Your task to perform on an android device: uninstall "Booking.com: Hotels and more" Image 0: 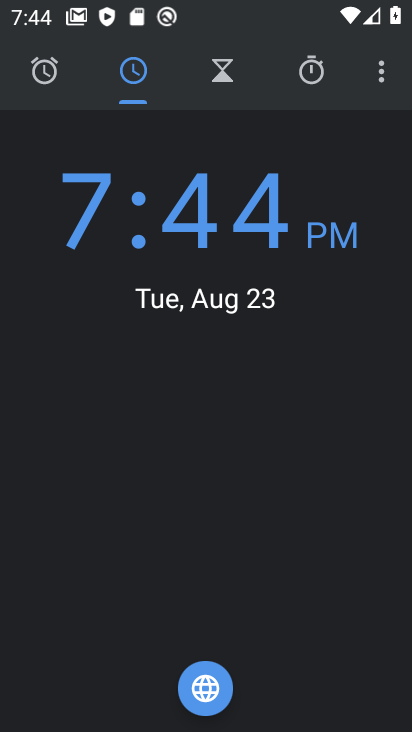
Step 0: press home button
Your task to perform on an android device: uninstall "Booking.com: Hotels and more" Image 1: 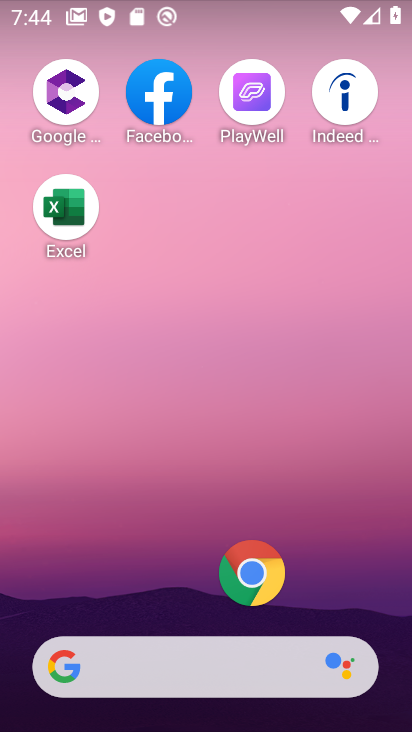
Step 1: drag from (184, 593) to (141, 131)
Your task to perform on an android device: uninstall "Booking.com: Hotels and more" Image 2: 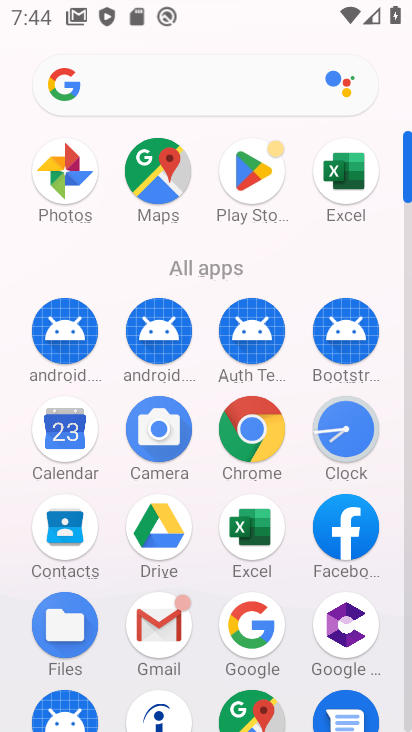
Step 2: click (252, 163)
Your task to perform on an android device: uninstall "Booking.com: Hotels and more" Image 3: 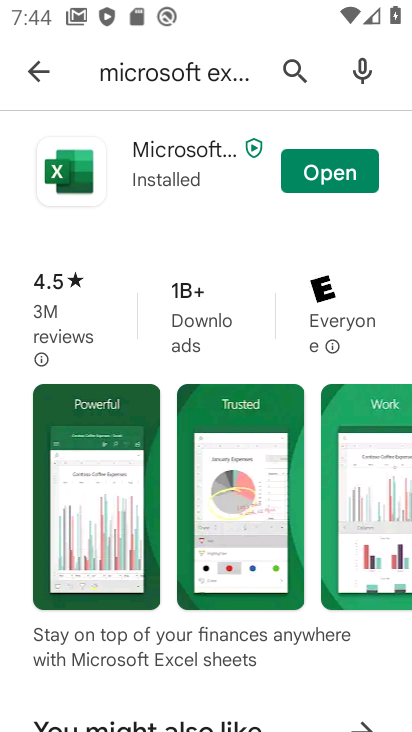
Step 3: click (29, 72)
Your task to perform on an android device: uninstall "Booking.com: Hotels and more" Image 4: 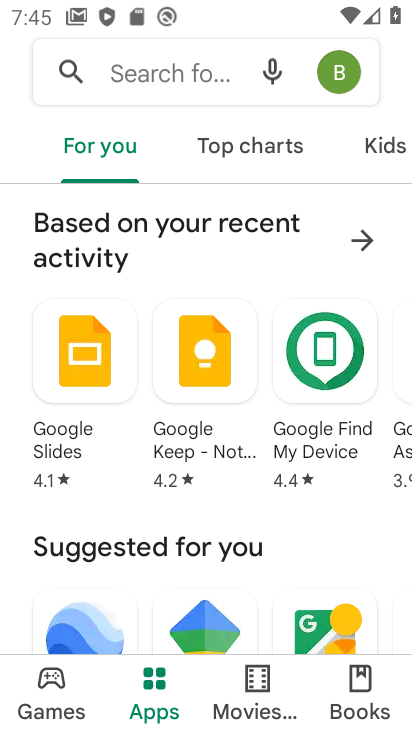
Step 4: click (126, 63)
Your task to perform on an android device: uninstall "Booking.com: Hotels and more" Image 5: 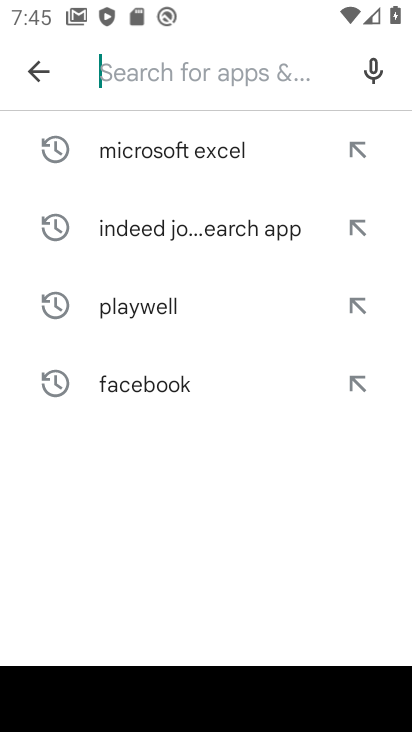
Step 5: type "Booking.com: Hotels and more"
Your task to perform on an android device: uninstall "Booking.com: Hotels and more" Image 6: 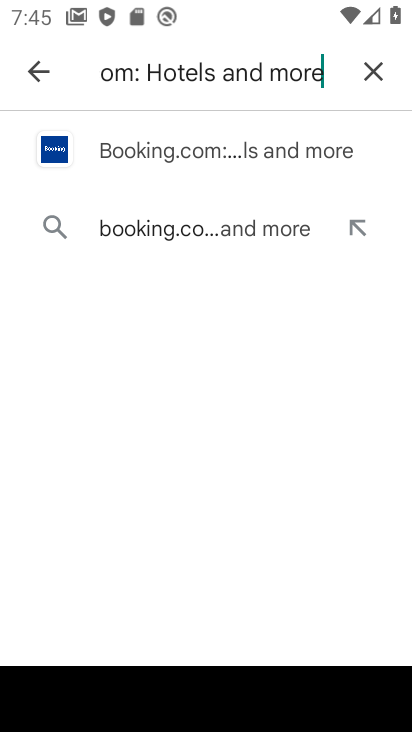
Step 6: click (190, 152)
Your task to perform on an android device: uninstall "Booking.com: Hotels and more" Image 7: 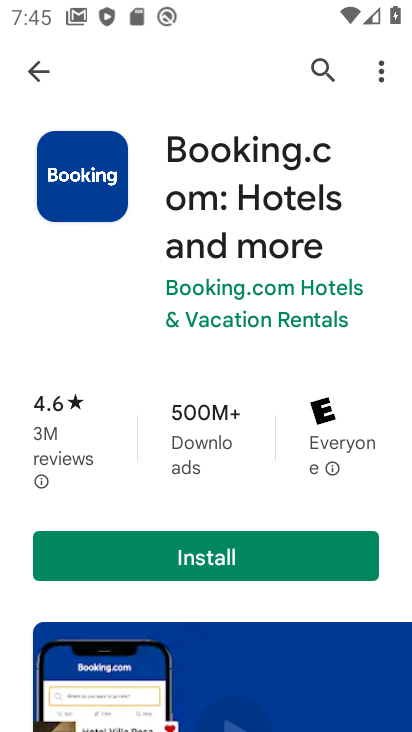
Step 7: click (189, 560)
Your task to perform on an android device: uninstall "Booking.com: Hotels and more" Image 8: 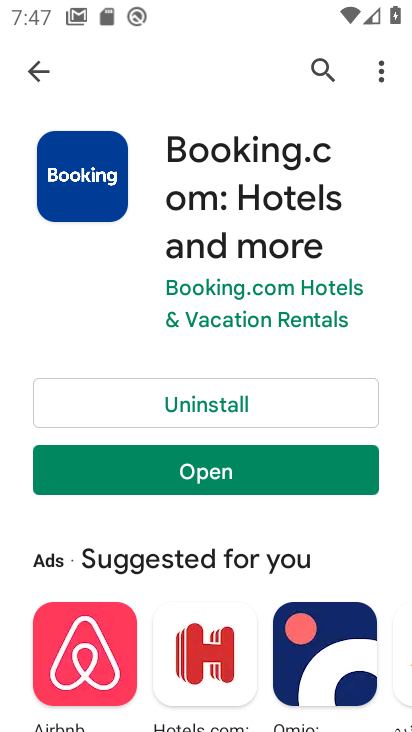
Step 8: click (220, 403)
Your task to perform on an android device: uninstall "Booking.com: Hotels and more" Image 9: 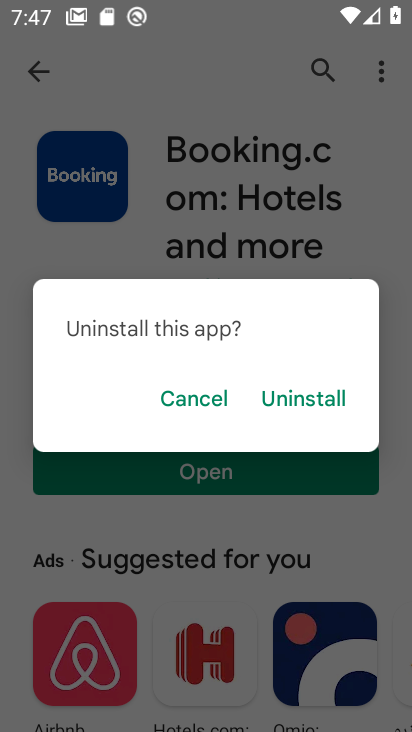
Step 9: click (273, 403)
Your task to perform on an android device: uninstall "Booking.com: Hotels and more" Image 10: 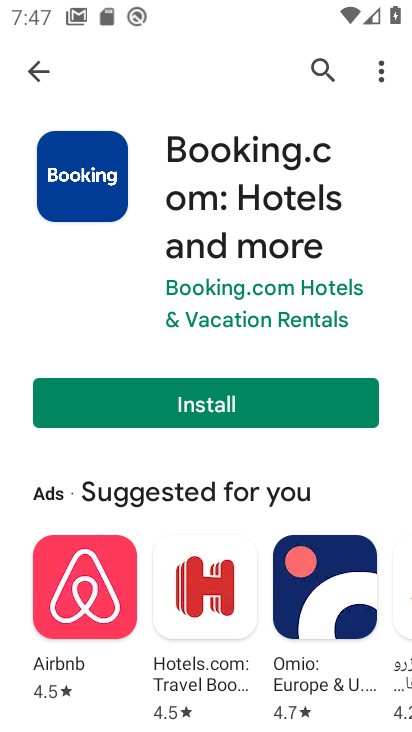
Step 10: task complete